Your task to perform on an android device: turn on javascript in the chrome app Image 0: 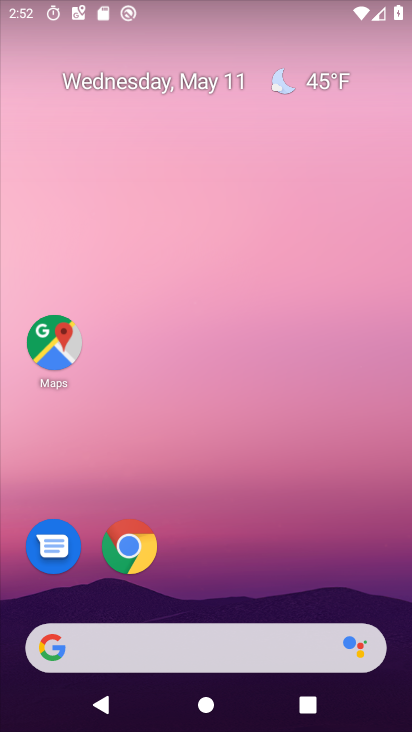
Step 0: drag from (241, 581) to (269, 17)
Your task to perform on an android device: turn on javascript in the chrome app Image 1: 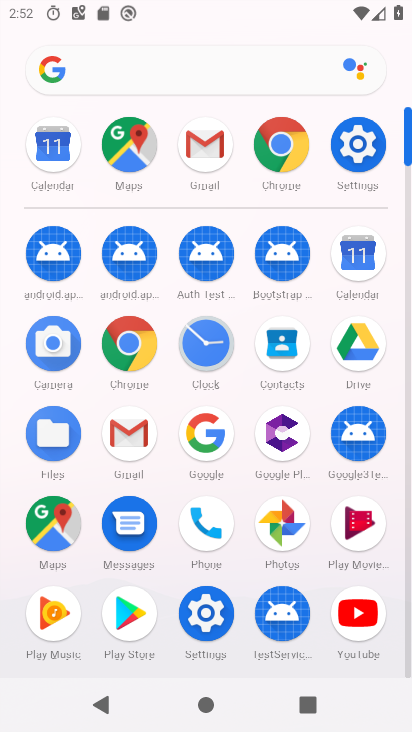
Step 1: click (124, 357)
Your task to perform on an android device: turn on javascript in the chrome app Image 2: 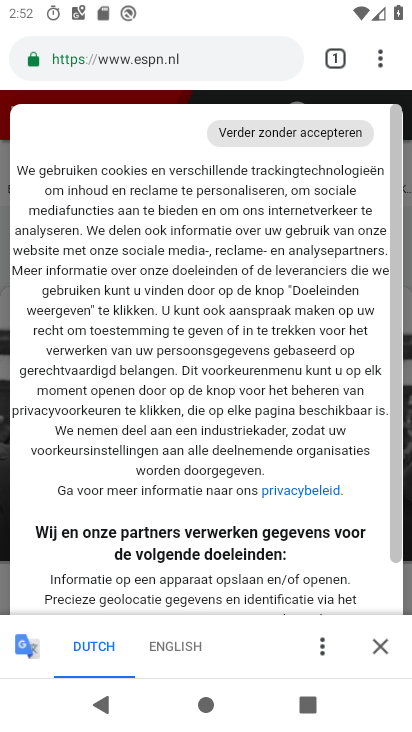
Step 2: click (374, 67)
Your task to perform on an android device: turn on javascript in the chrome app Image 3: 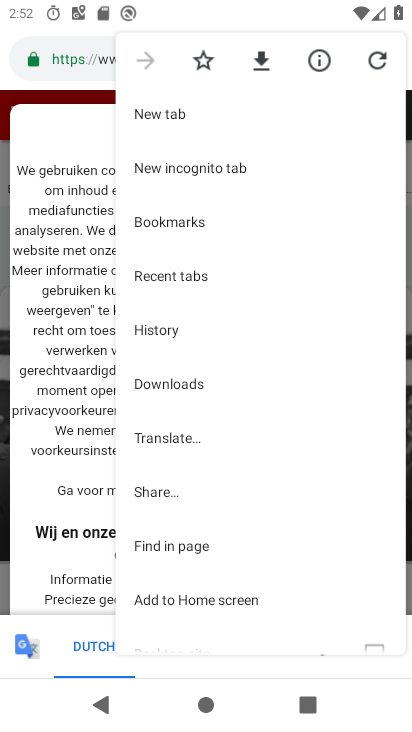
Step 3: drag from (177, 565) to (241, 259)
Your task to perform on an android device: turn on javascript in the chrome app Image 4: 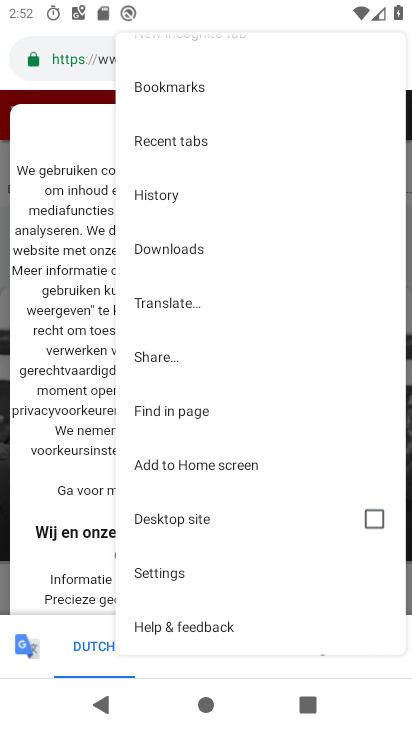
Step 4: click (166, 577)
Your task to perform on an android device: turn on javascript in the chrome app Image 5: 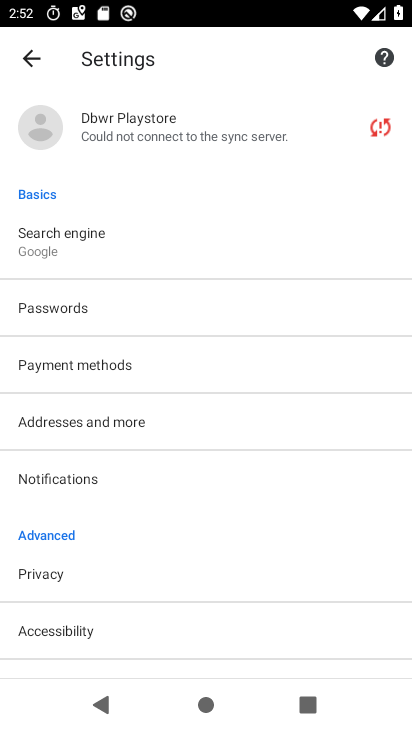
Step 5: drag from (101, 521) to (179, 171)
Your task to perform on an android device: turn on javascript in the chrome app Image 6: 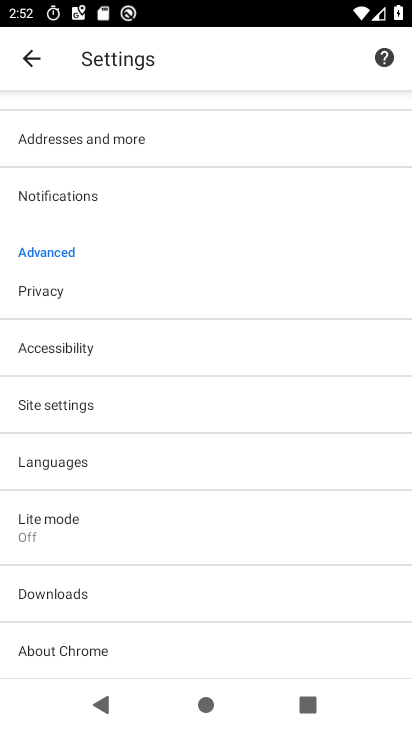
Step 6: click (63, 402)
Your task to perform on an android device: turn on javascript in the chrome app Image 7: 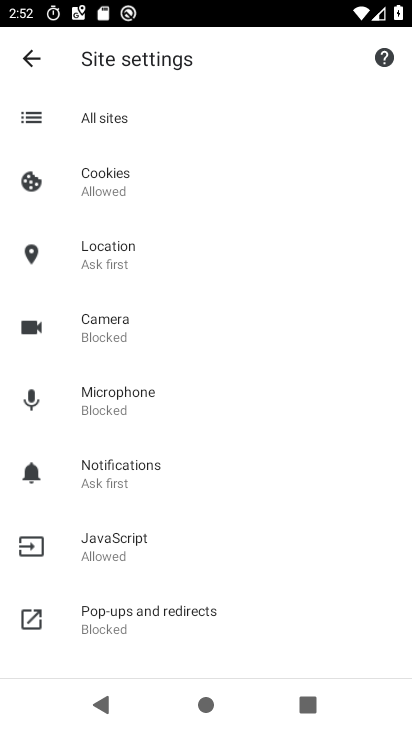
Step 7: click (145, 551)
Your task to perform on an android device: turn on javascript in the chrome app Image 8: 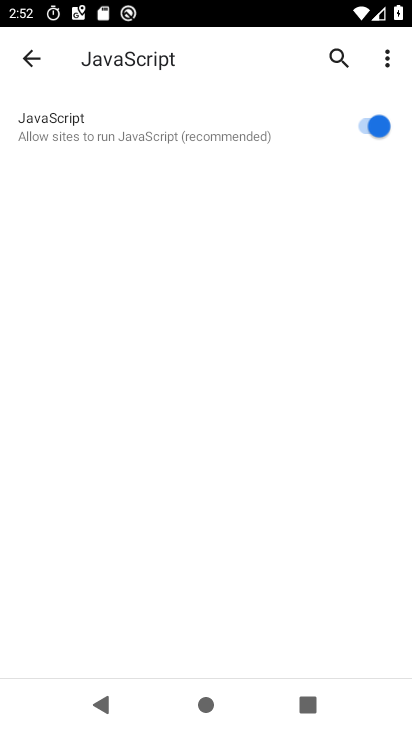
Step 8: task complete